Your task to perform on an android device: create a new album in the google photos Image 0: 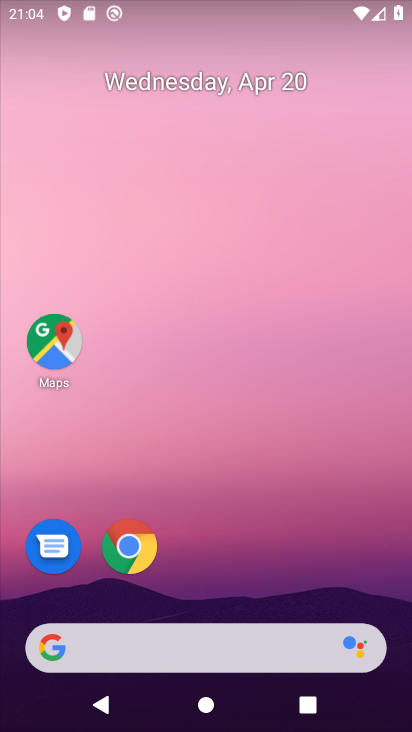
Step 0: drag from (325, 606) to (289, 42)
Your task to perform on an android device: create a new album in the google photos Image 1: 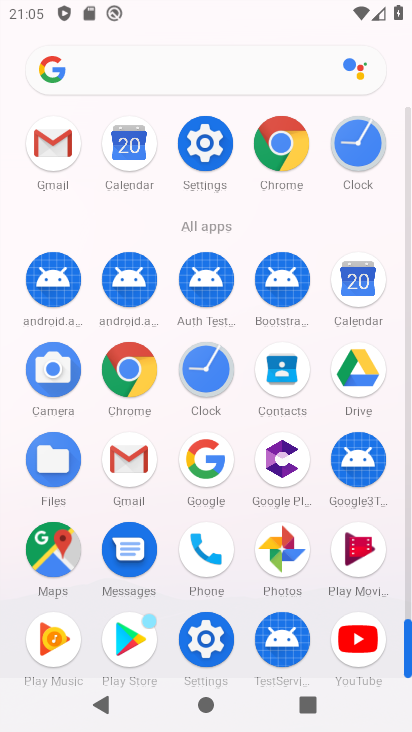
Step 1: click (287, 546)
Your task to perform on an android device: create a new album in the google photos Image 2: 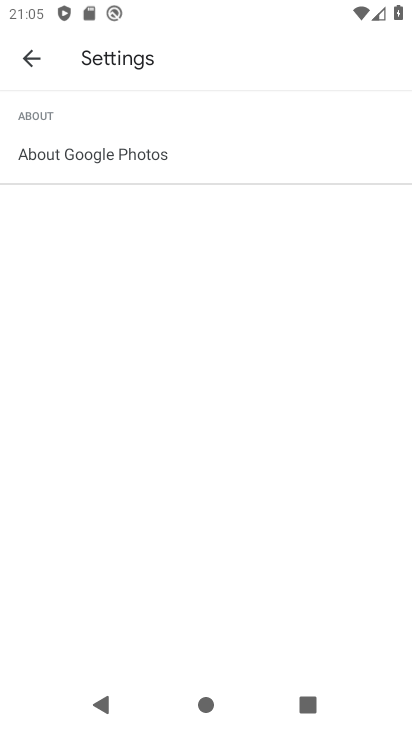
Step 2: click (32, 58)
Your task to perform on an android device: create a new album in the google photos Image 3: 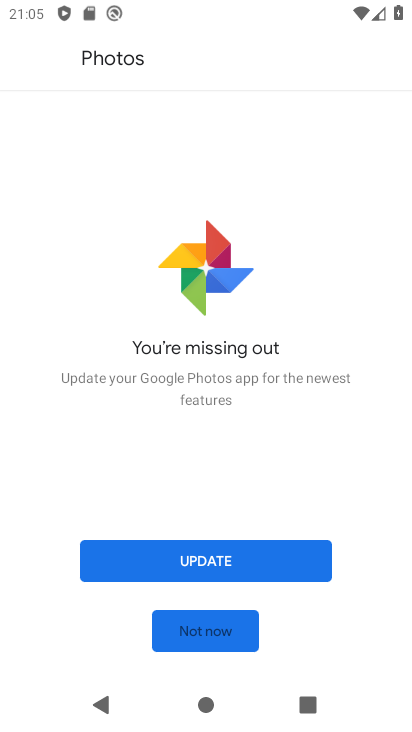
Step 3: click (226, 637)
Your task to perform on an android device: create a new album in the google photos Image 4: 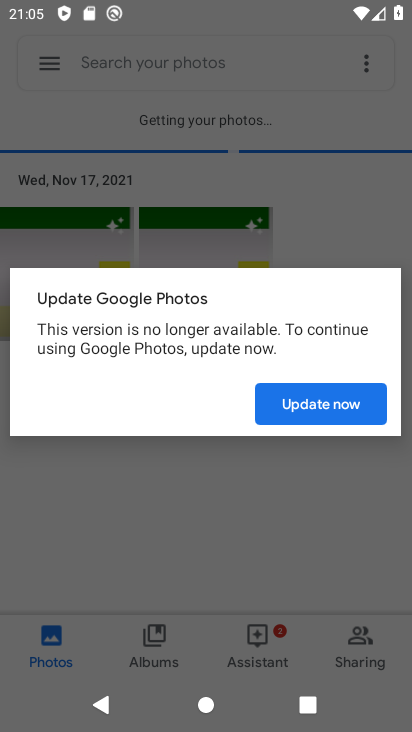
Step 4: click (235, 485)
Your task to perform on an android device: create a new album in the google photos Image 5: 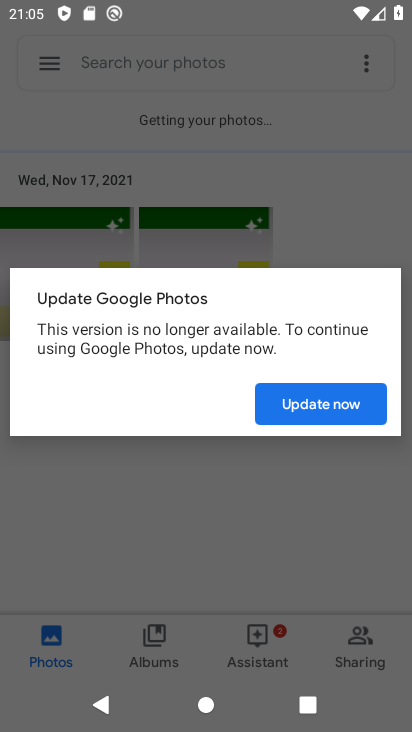
Step 5: click (270, 422)
Your task to perform on an android device: create a new album in the google photos Image 6: 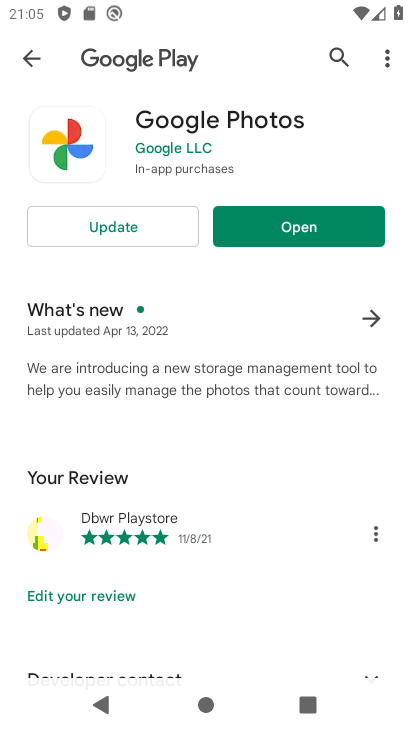
Step 6: click (247, 222)
Your task to perform on an android device: create a new album in the google photos Image 7: 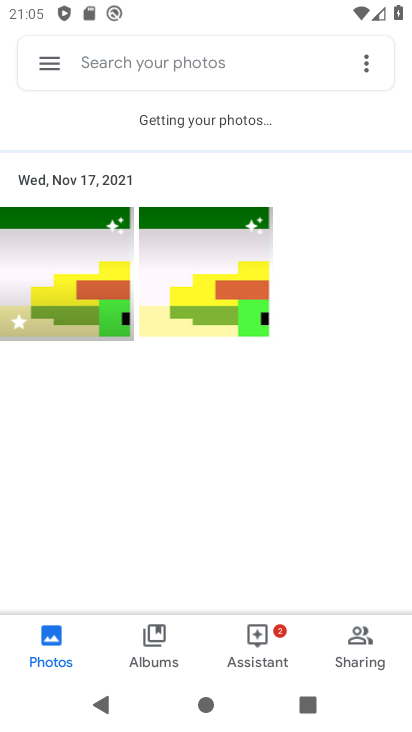
Step 7: click (83, 259)
Your task to perform on an android device: create a new album in the google photos Image 8: 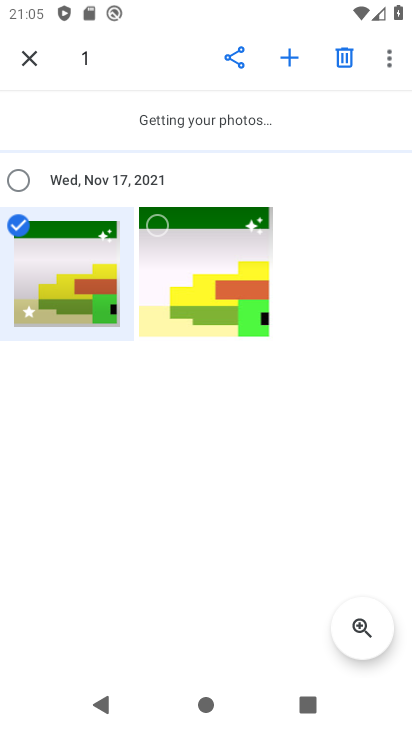
Step 8: click (292, 56)
Your task to perform on an android device: create a new album in the google photos Image 9: 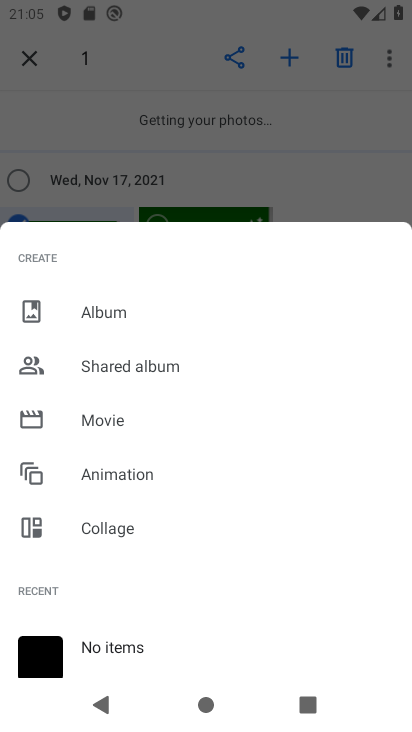
Step 9: click (132, 310)
Your task to perform on an android device: create a new album in the google photos Image 10: 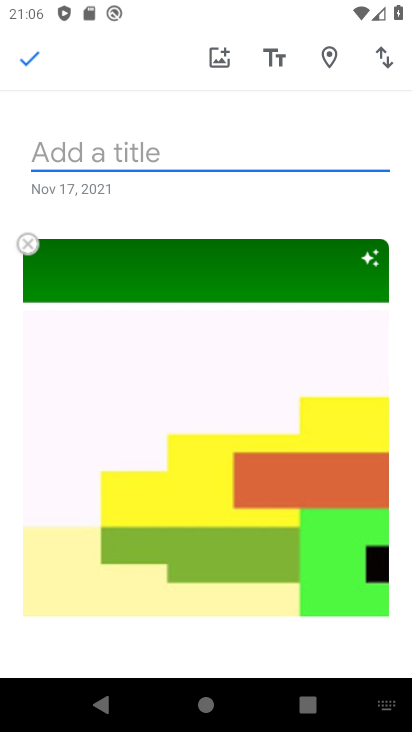
Step 10: type "bbbbb"
Your task to perform on an android device: create a new album in the google photos Image 11: 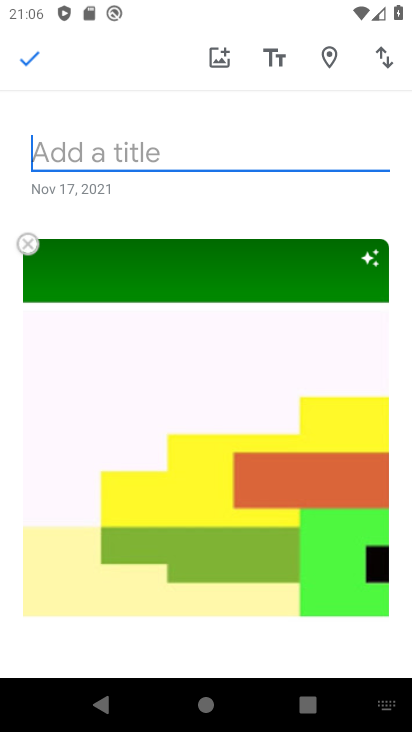
Step 11: click (26, 47)
Your task to perform on an android device: create a new album in the google photos Image 12: 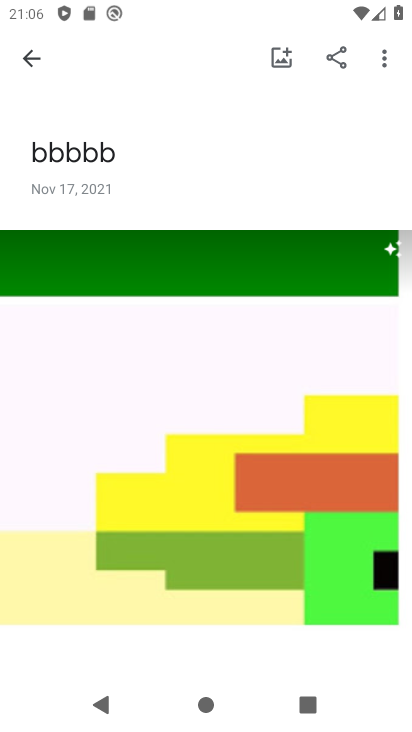
Step 12: task complete